Your task to perform on an android device: Open display settings Image 0: 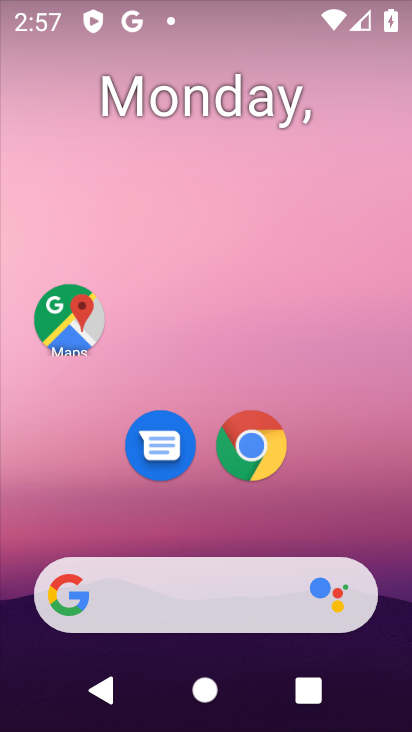
Step 0: drag from (181, 533) to (277, 38)
Your task to perform on an android device: Open display settings Image 1: 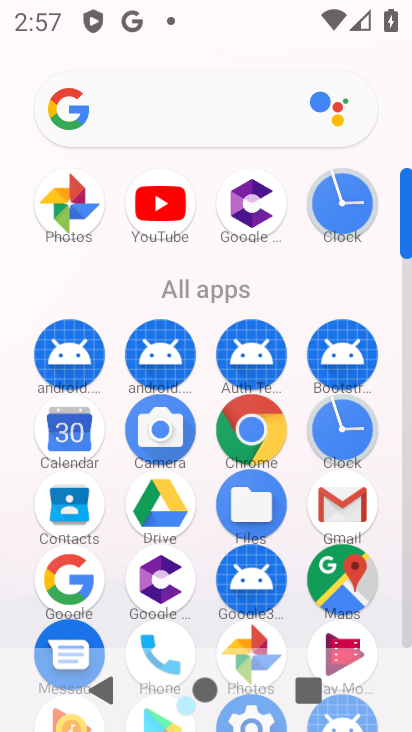
Step 1: drag from (158, 564) to (207, 344)
Your task to perform on an android device: Open display settings Image 2: 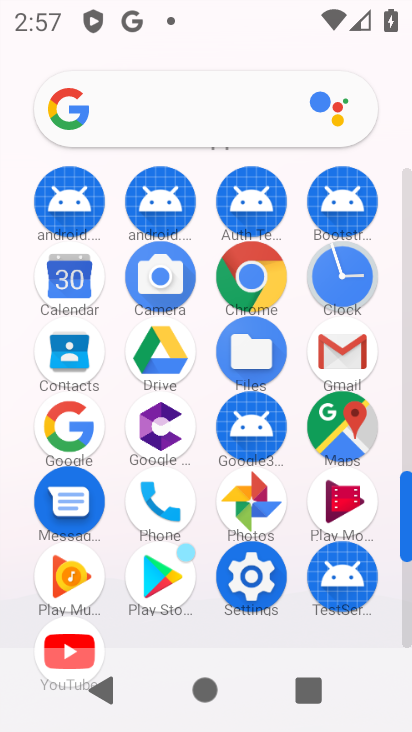
Step 2: click (243, 570)
Your task to perform on an android device: Open display settings Image 3: 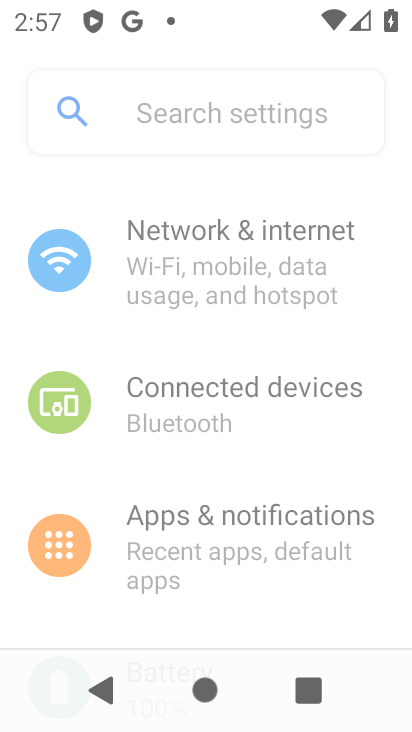
Step 3: drag from (209, 564) to (304, 170)
Your task to perform on an android device: Open display settings Image 4: 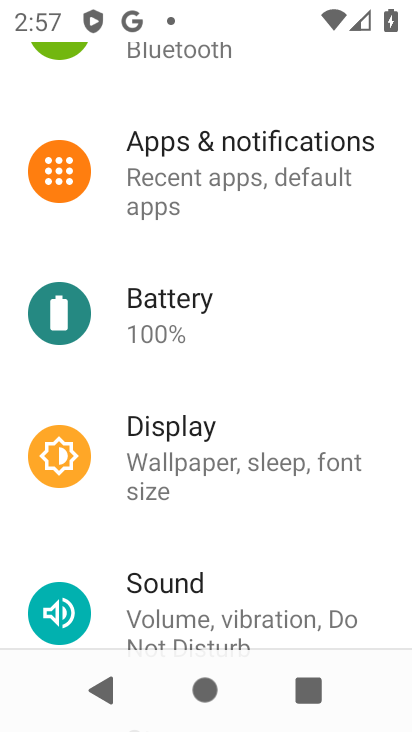
Step 4: click (188, 438)
Your task to perform on an android device: Open display settings Image 5: 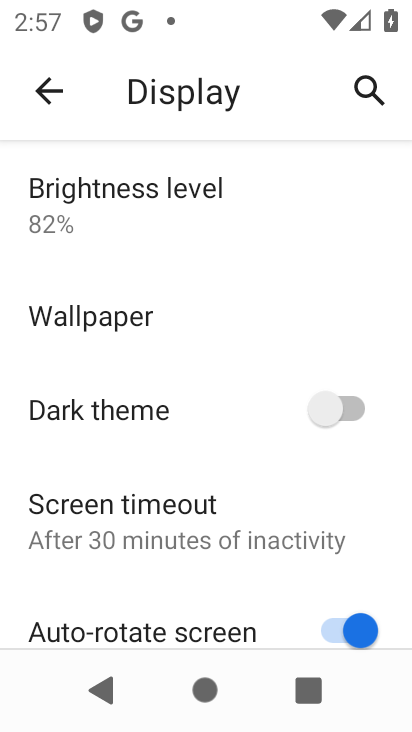
Step 5: task complete